Your task to perform on an android device: Open settings Image 0: 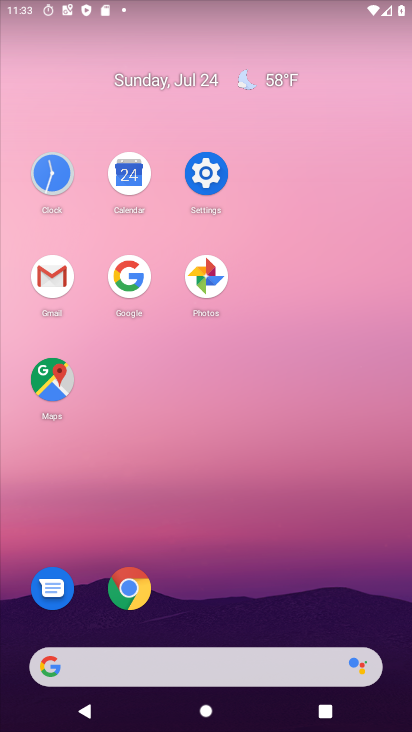
Step 0: click (213, 172)
Your task to perform on an android device: Open settings Image 1: 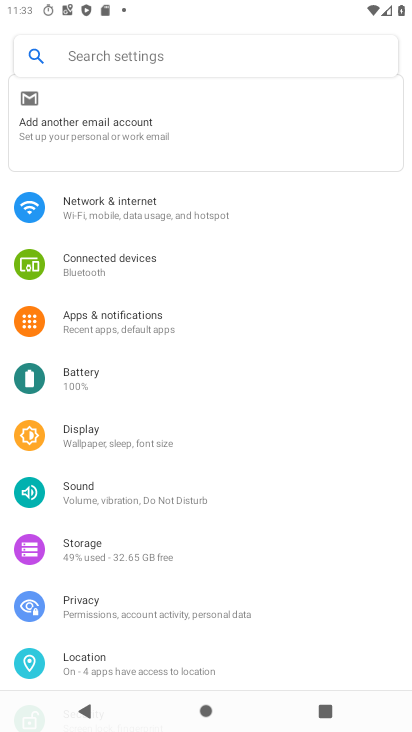
Step 1: task complete